Your task to perform on an android device: Open wifi settings Image 0: 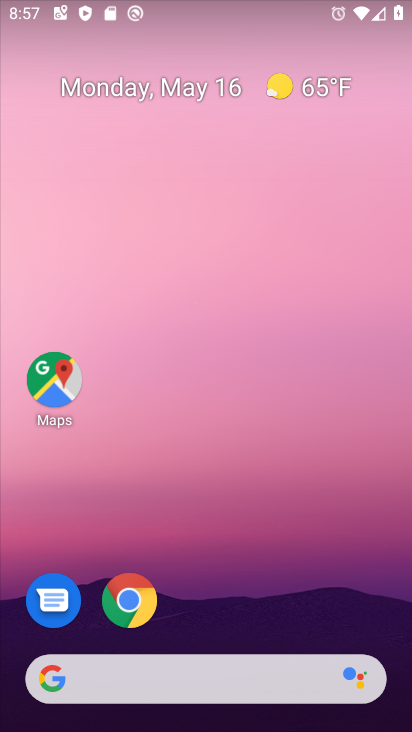
Step 0: drag from (205, 613) to (290, 117)
Your task to perform on an android device: Open wifi settings Image 1: 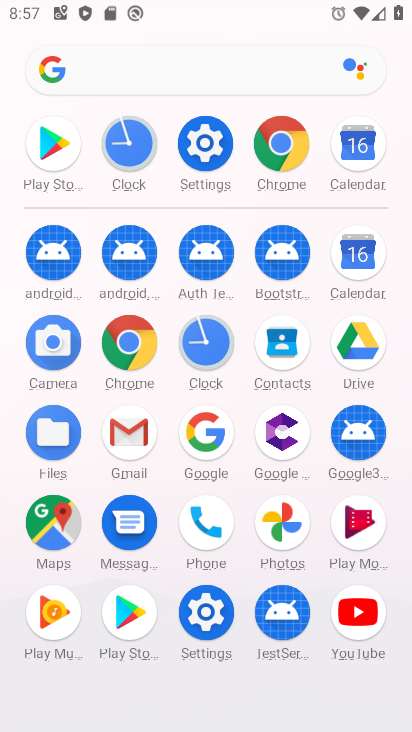
Step 1: click (199, 154)
Your task to perform on an android device: Open wifi settings Image 2: 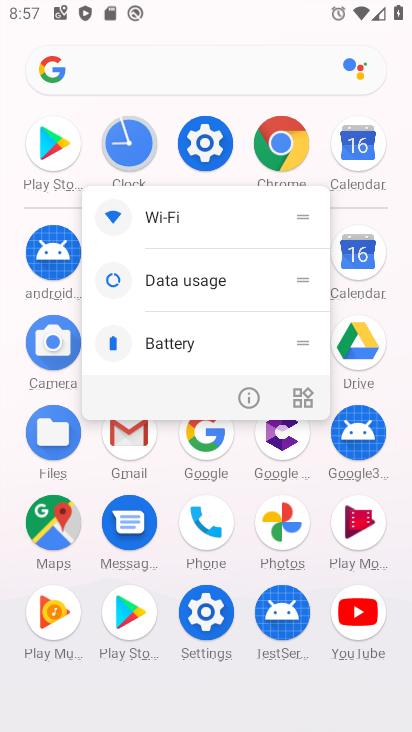
Step 2: click (262, 393)
Your task to perform on an android device: Open wifi settings Image 3: 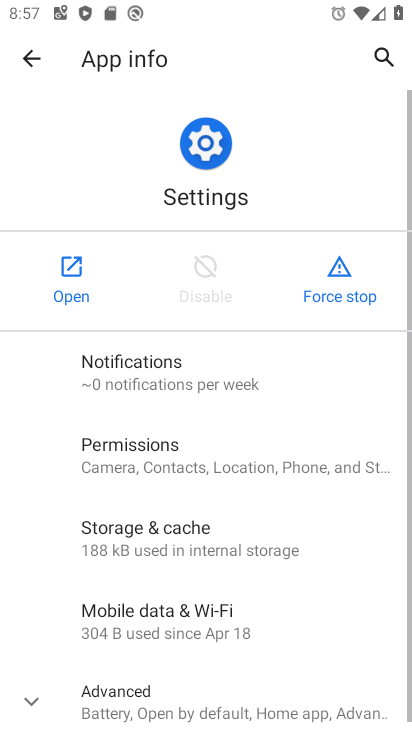
Step 3: click (73, 259)
Your task to perform on an android device: Open wifi settings Image 4: 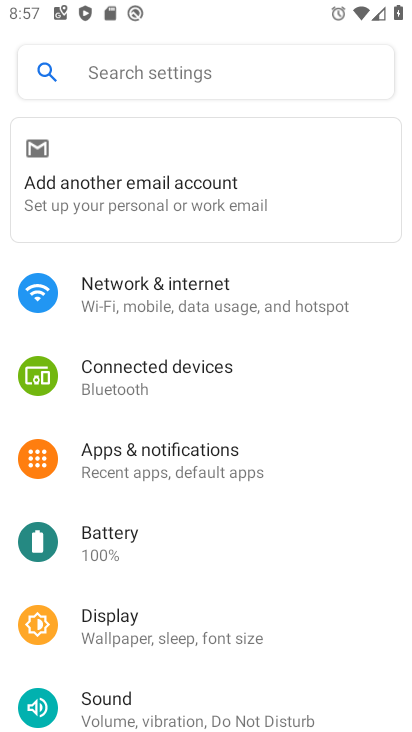
Step 4: drag from (95, 525) to (334, 69)
Your task to perform on an android device: Open wifi settings Image 5: 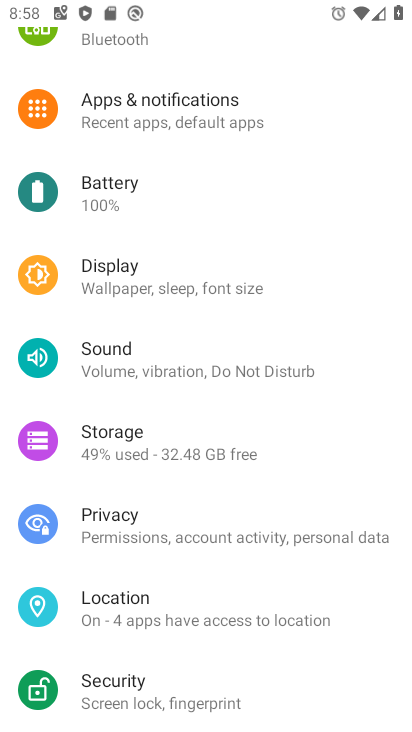
Step 5: drag from (191, 98) to (309, 667)
Your task to perform on an android device: Open wifi settings Image 6: 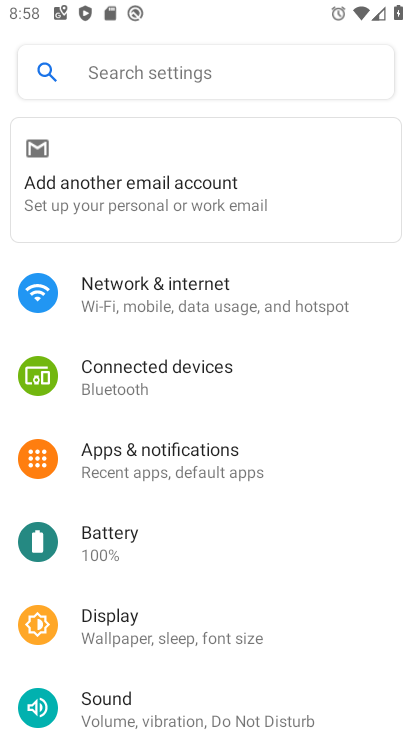
Step 6: click (170, 283)
Your task to perform on an android device: Open wifi settings Image 7: 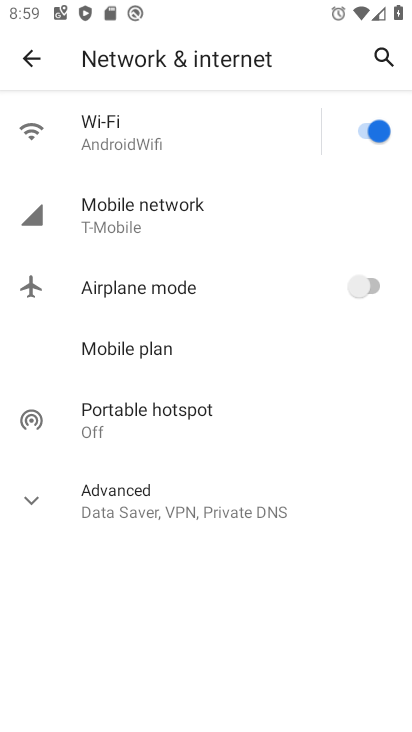
Step 7: click (208, 137)
Your task to perform on an android device: Open wifi settings Image 8: 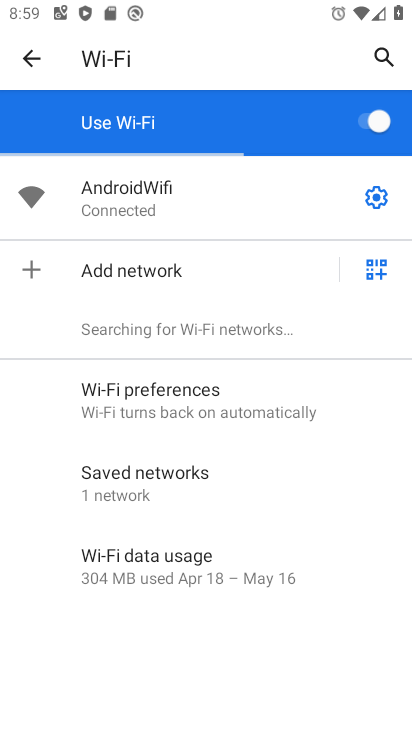
Step 8: click (372, 197)
Your task to perform on an android device: Open wifi settings Image 9: 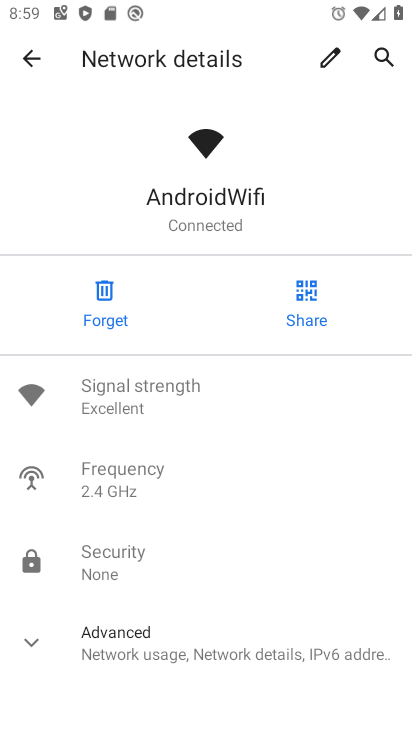
Step 9: task complete